Your task to perform on an android device: Is it going to rain today? Image 0: 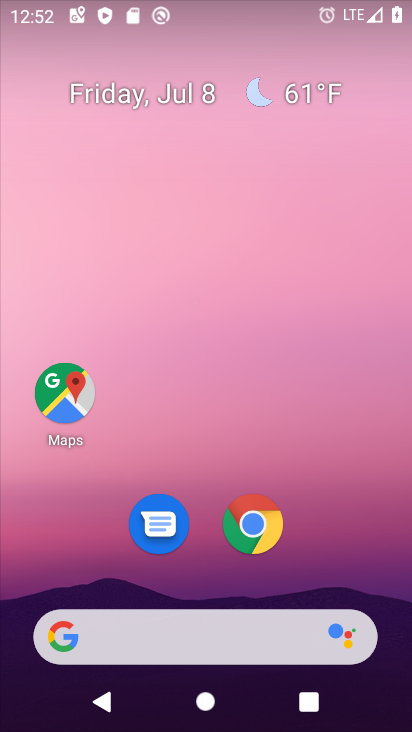
Step 0: click (276, 84)
Your task to perform on an android device: Is it going to rain today? Image 1: 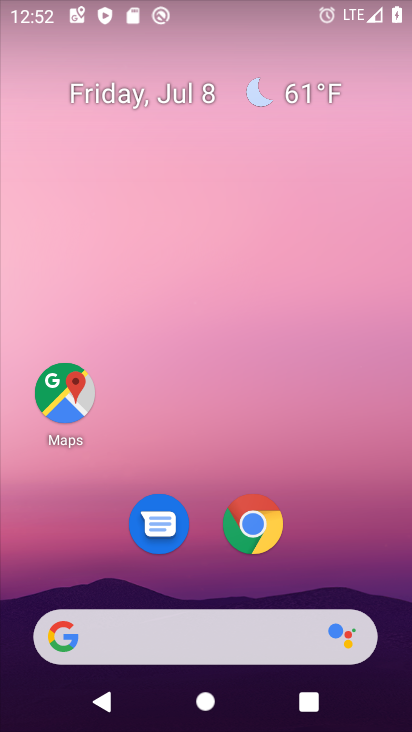
Step 1: click (268, 89)
Your task to perform on an android device: Is it going to rain today? Image 2: 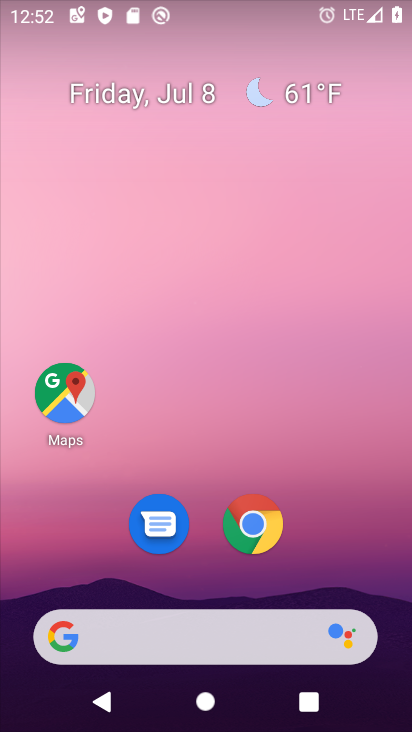
Step 2: click (293, 98)
Your task to perform on an android device: Is it going to rain today? Image 3: 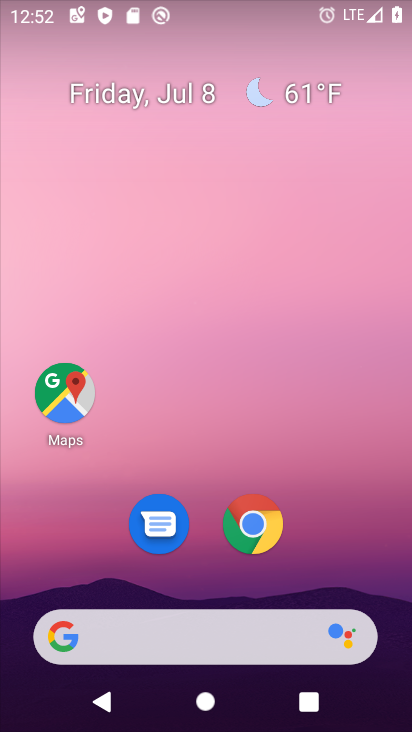
Step 3: click (214, 632)
Your task to perform on an android device: Is it going to rain today? Image 4: 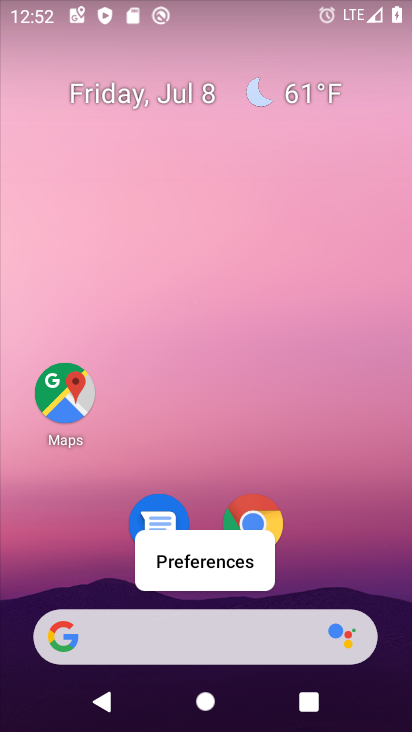
Step 4: click (214, 646)
Your task to perform on an android device: Is it going to rain today? Image 5: 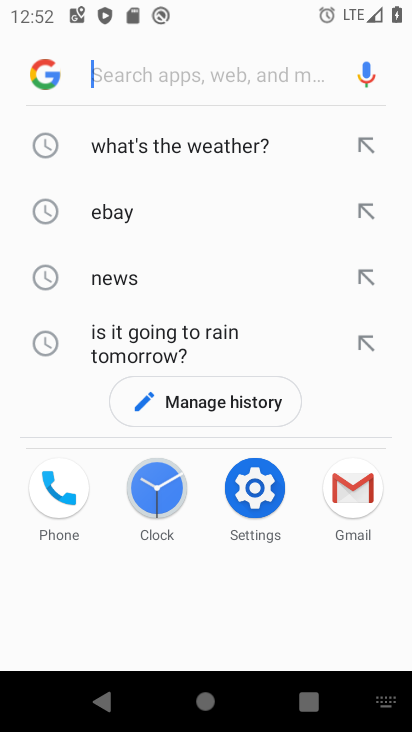
Step 5: click (189, 144)
Your task to perform on an android device: Is it going to rain today? Image 6: 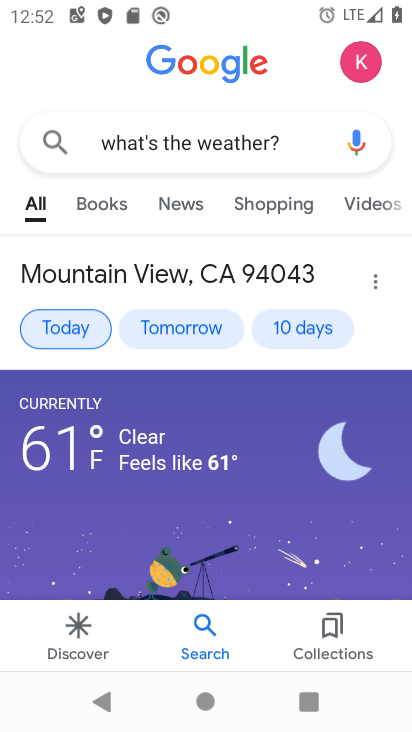
Step 6: click (86, 326)
Your task to perform on an android device: Is it going to rain today? Image 7: 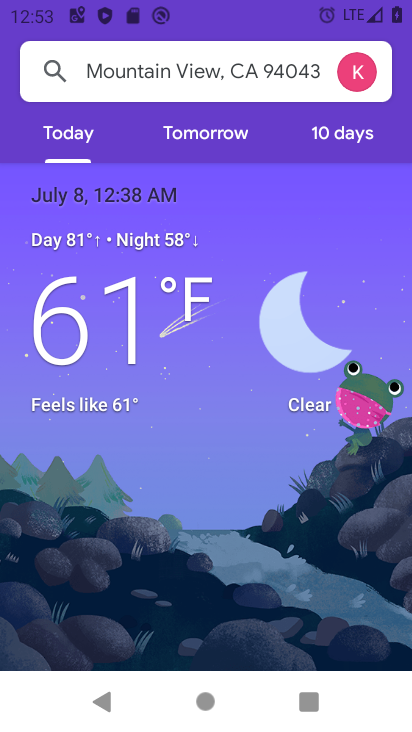
Step 7: task complete